Your task to perform on an android device: Open Chrome and go to settings Image 0: 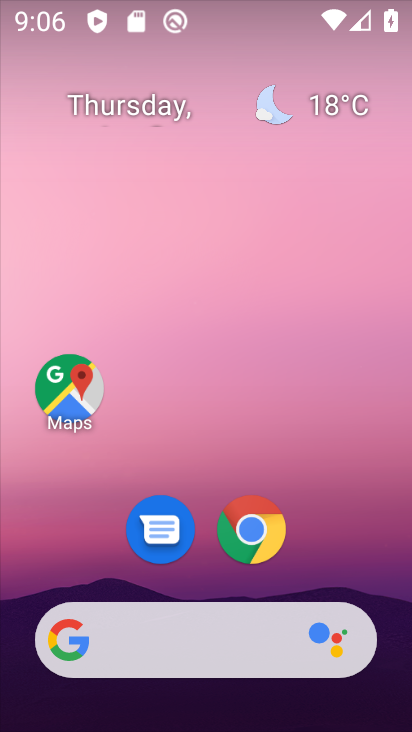
Step 0: click (259, 536)
Your task to perform on an android device: Open Chrome and go to settings Image 1: 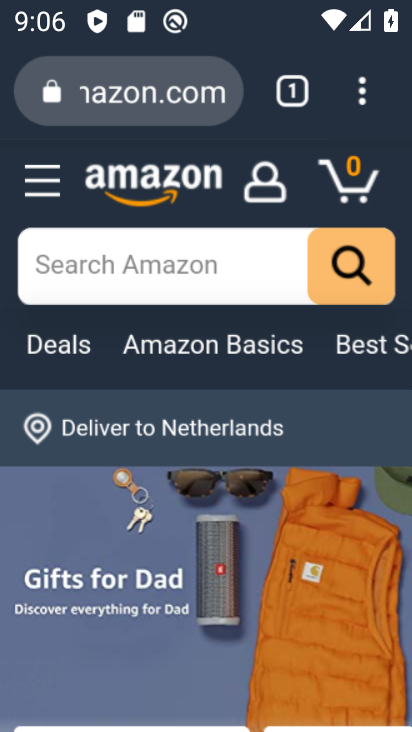
Step 1: click (359, 84)
Your task to perform on an android device: Open Chrome and go to settings Image 2: 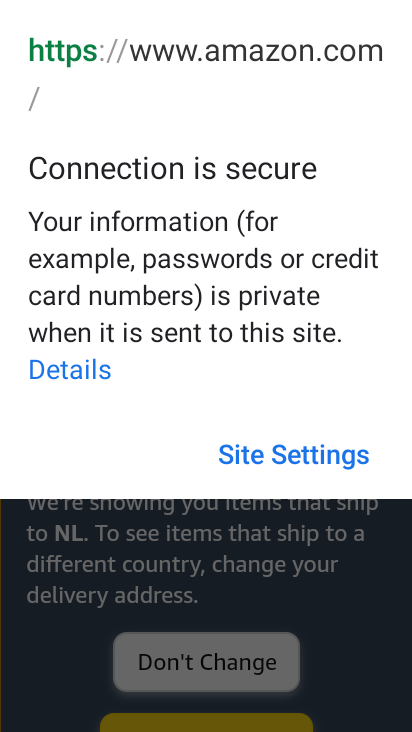
Step 2: press back button
Your task to perform on an android device: Open Chrome and go to settings Image 3: 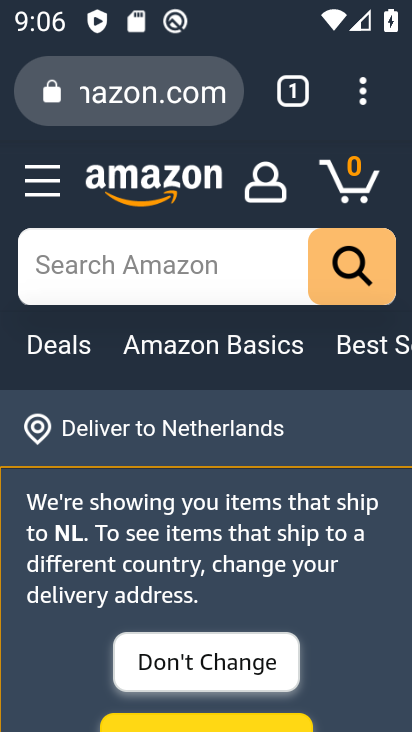
Step 3: click (363, 85)
Your task to perform on an android device: Open Chrome and go to settings Image 4: 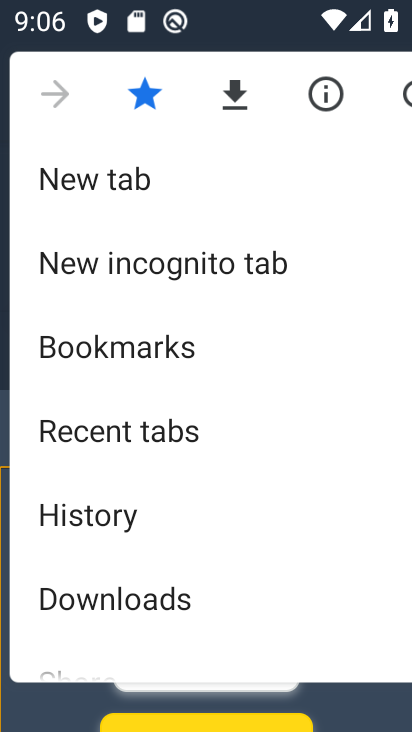
Step 4: drag from (240, 631) to (221, 331)
Your task to perform on an android device: Open Chrome and go to settings Image 5: 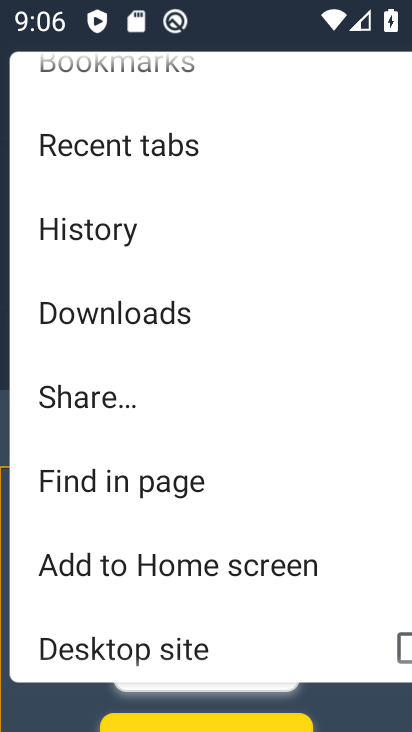
Step 5: drag from (238, 631) to (235, 335)
Your task to perform on an android device: Open Chrome and go to settings Image 6: 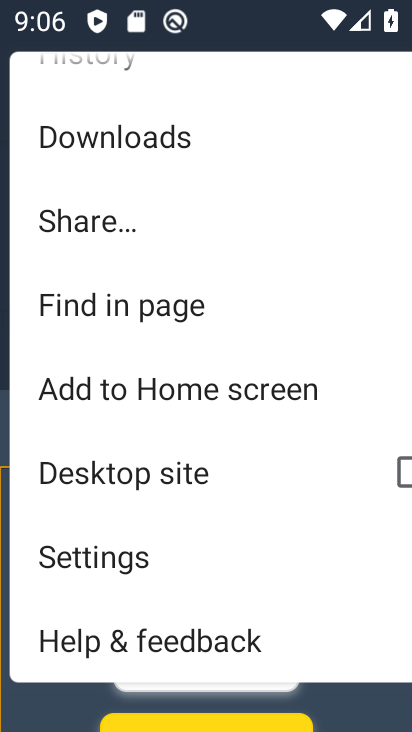
Step 6: click (104, 551)
Your task to perform on an android device: Open Chrome and go to settings Image 7: 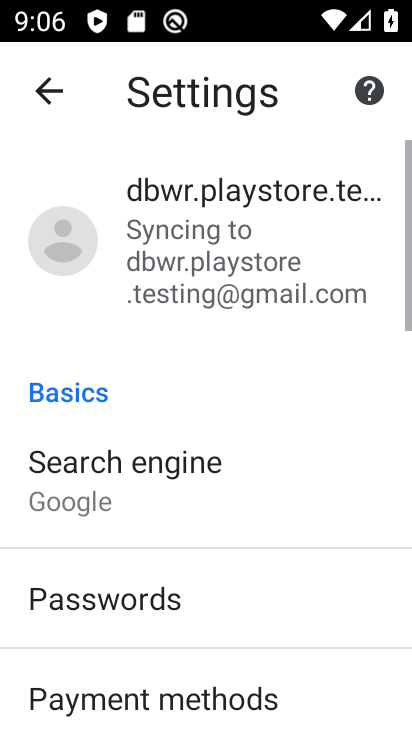
Step 7: task complete